Your task to perform on an android device: Turn on the flashlight Image 0: 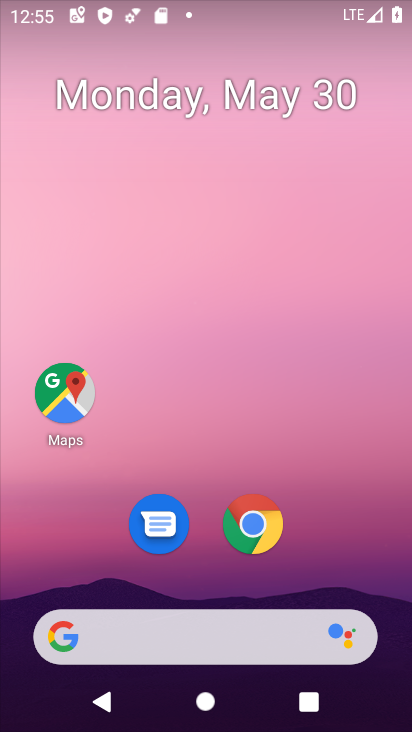
Step 0: drag from (270, 444) to (297, 0)
Your task to perform on an android device: Turn on the flashlight Image 1: 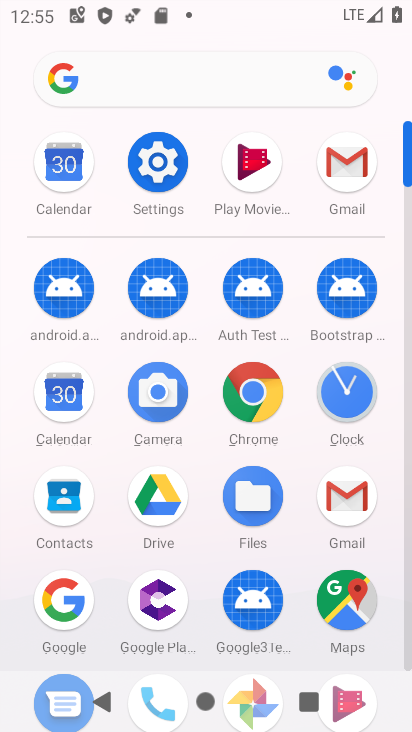
Step 1: click (161, 169)
Your task to perform on an android device: Turn on the flashlight Image 2: 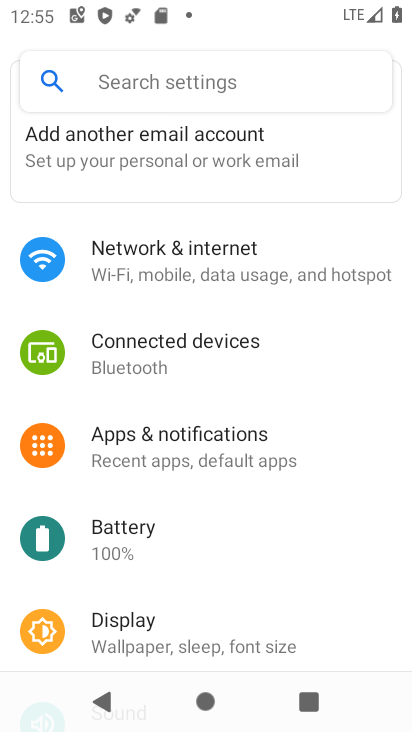
Step 2: drag from (249, 379) to (247, 543)
Your task to perform on an android device: Turn on the flashlight Image 3: 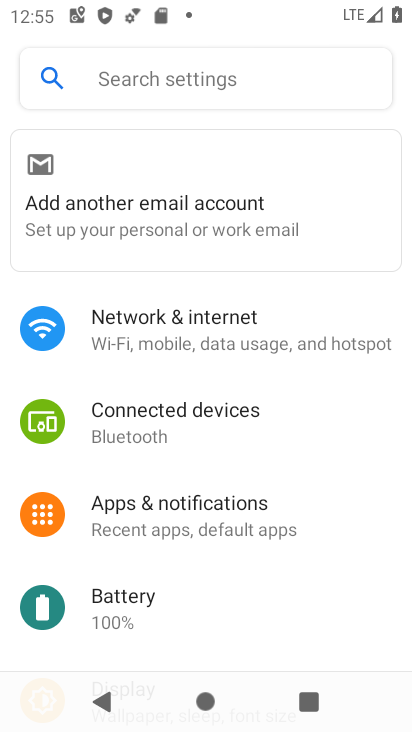
Step 3: click (272, 327)
Your task to perform on an android device: Turn on the flashlight Image 4: 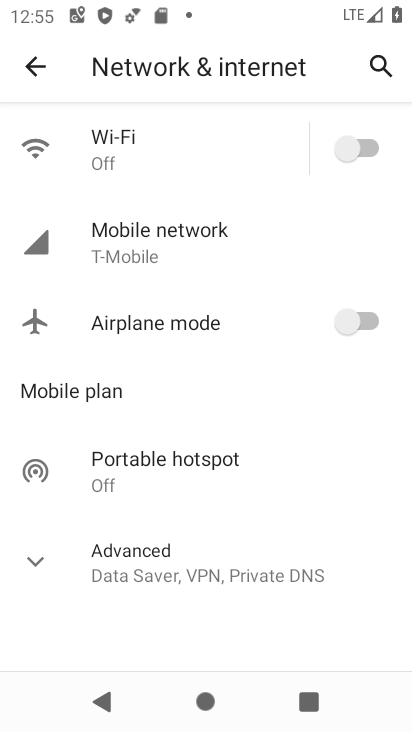
Step 4: click (34, 60)
Your task to perform on an android device: Turn on the flashlight Image 5: 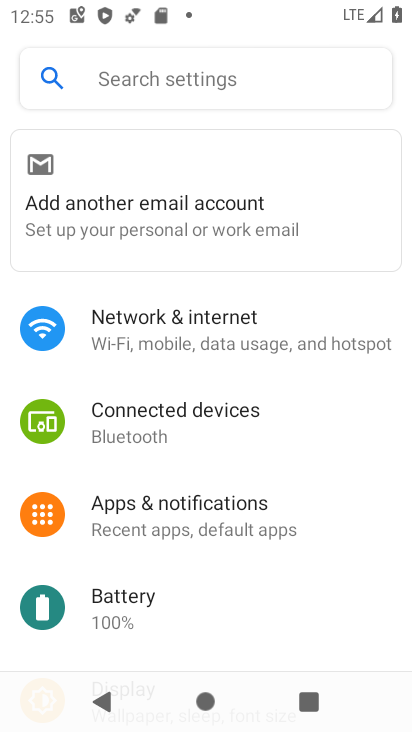
Step 5: click (187, 80)
Your task to perform on an android device: Turn on the flashlight Image 6: 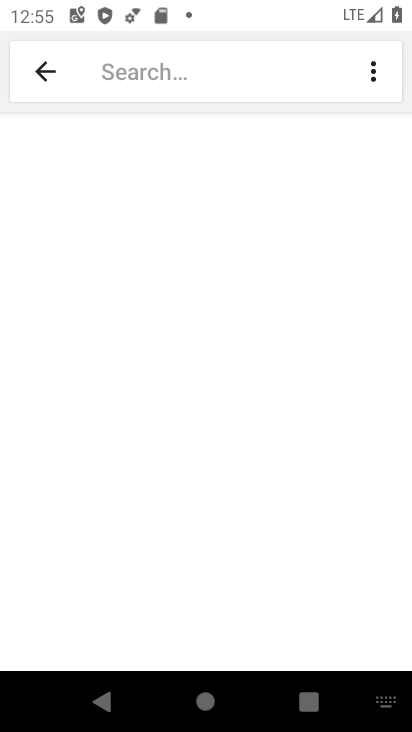
Step 6: type "Flashlight"
Your task to perform on an android device: Turn on the flashlight Image 7: 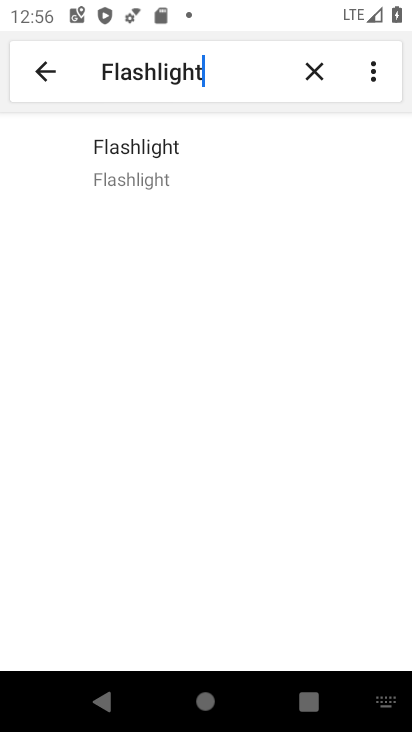
Step 7: click (152, 164)
Your task to perform on an android device: Turn on the flashlight Image 8: 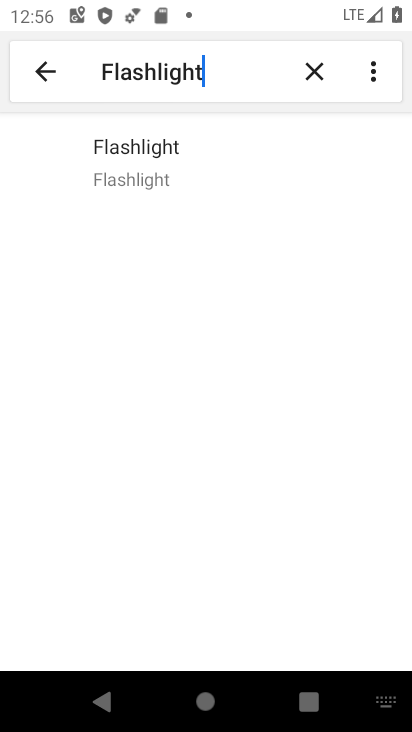
Step 8: click (154, 161)
Your task to perform on an android device: Turn on the flashlight Image 9: 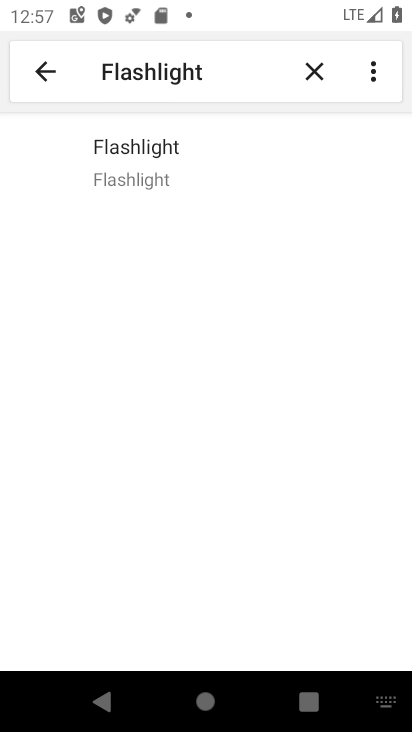
Step 9: task complete